Your task to perform on an android device: Go to Wikipedia Image 0: 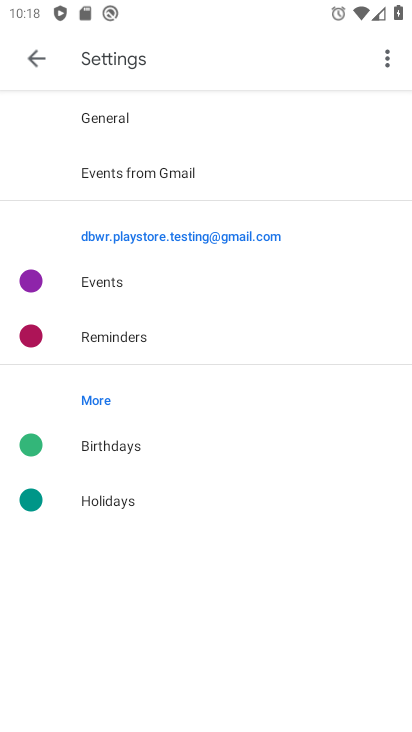
Step 0: press home button
Your task to perform on an android device: Go to Wikipedia Image 1: 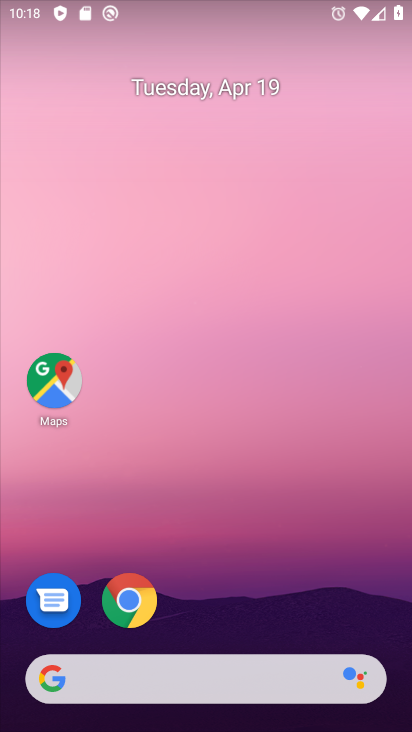
Step 1: drag from (294, 584) to (210, 169)
Your task to perform on an android device: Go to Wikipedia Image 2: 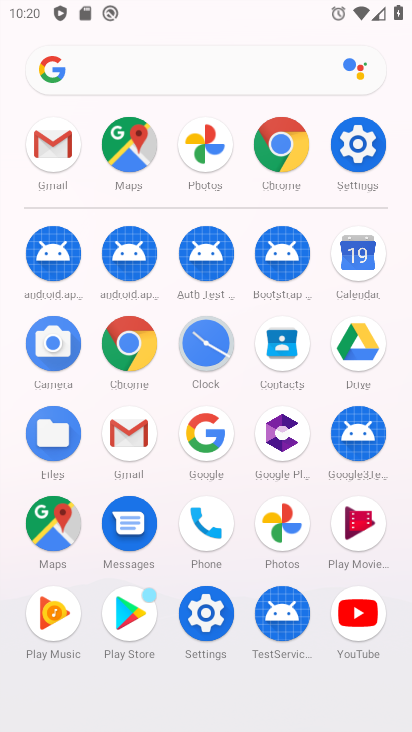
Step 2: click (279, 154)
Your task to perform on an android device: Go to Wikipedia Image 3: 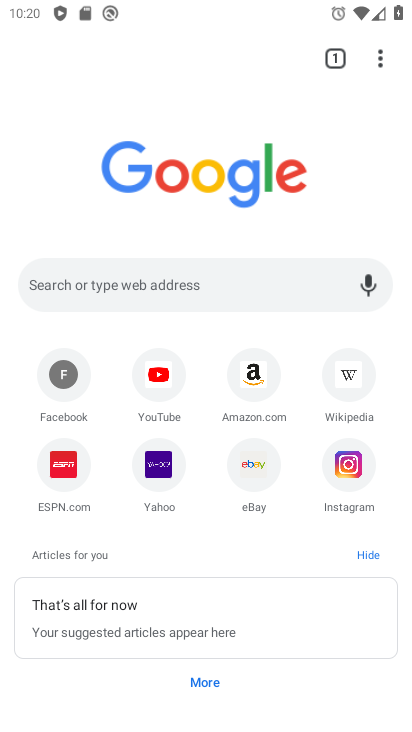
Step 3: click (187, 282)
Your task to perform on an android device: Go to Wikipedia Image 4: 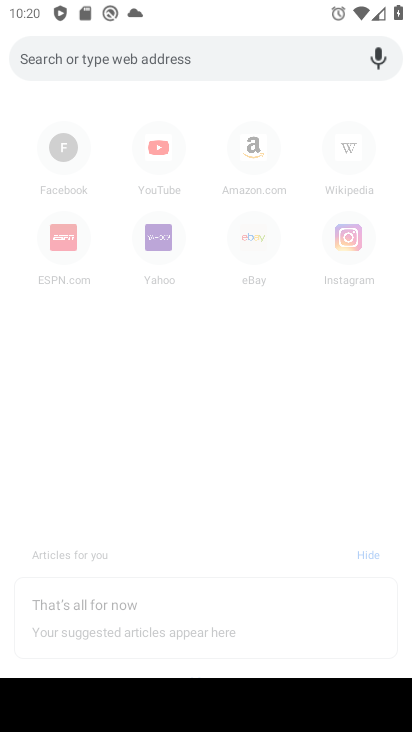
Step 4: type "wikipedia"
Your task to perform on an android device: Go to Wikipedia Image 5: 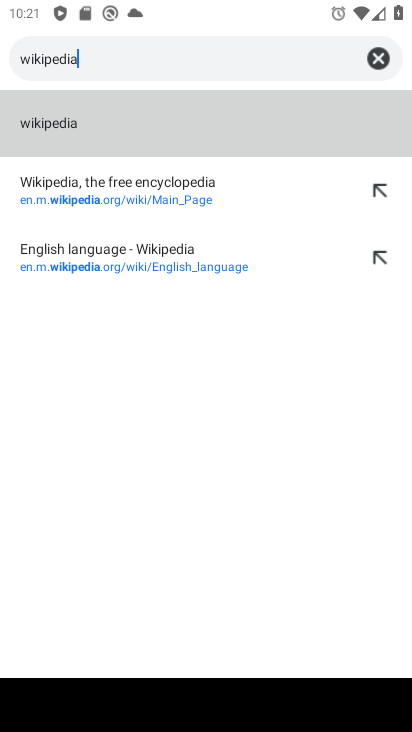
Step 5: click (114, 128)
Your task to perform on an android device: Go to Wikipedia Image 6: 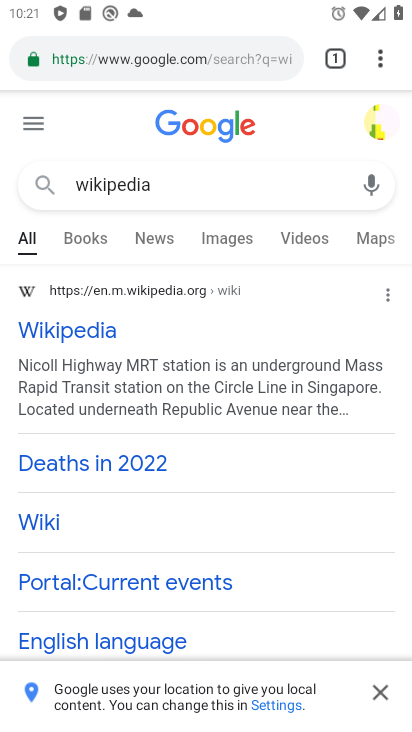
Step 6: task complete